Your task to perform on an android device: turn off notifications in google photos Image 0: 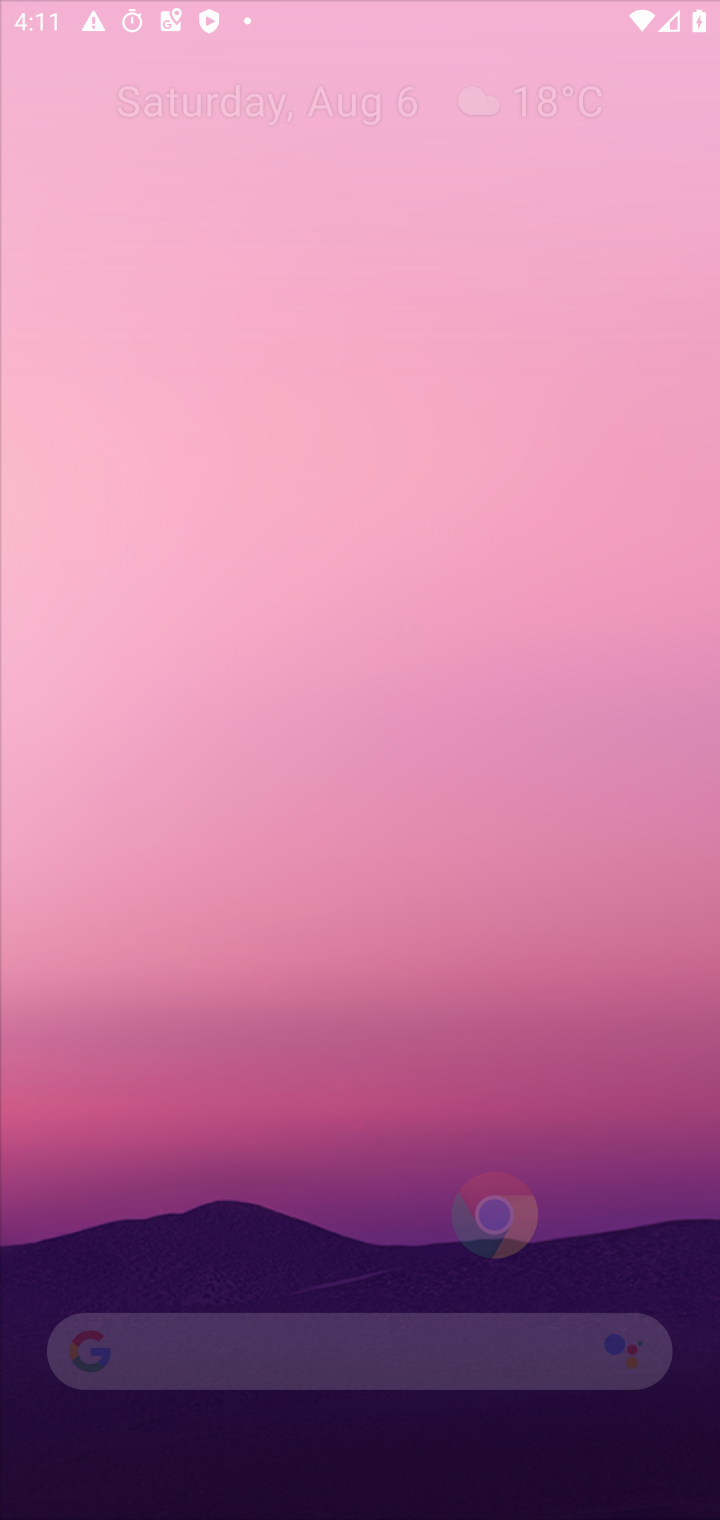
Step 0: press home button
Your task to perform on an android device: turn off notifications in google photos Image 1: 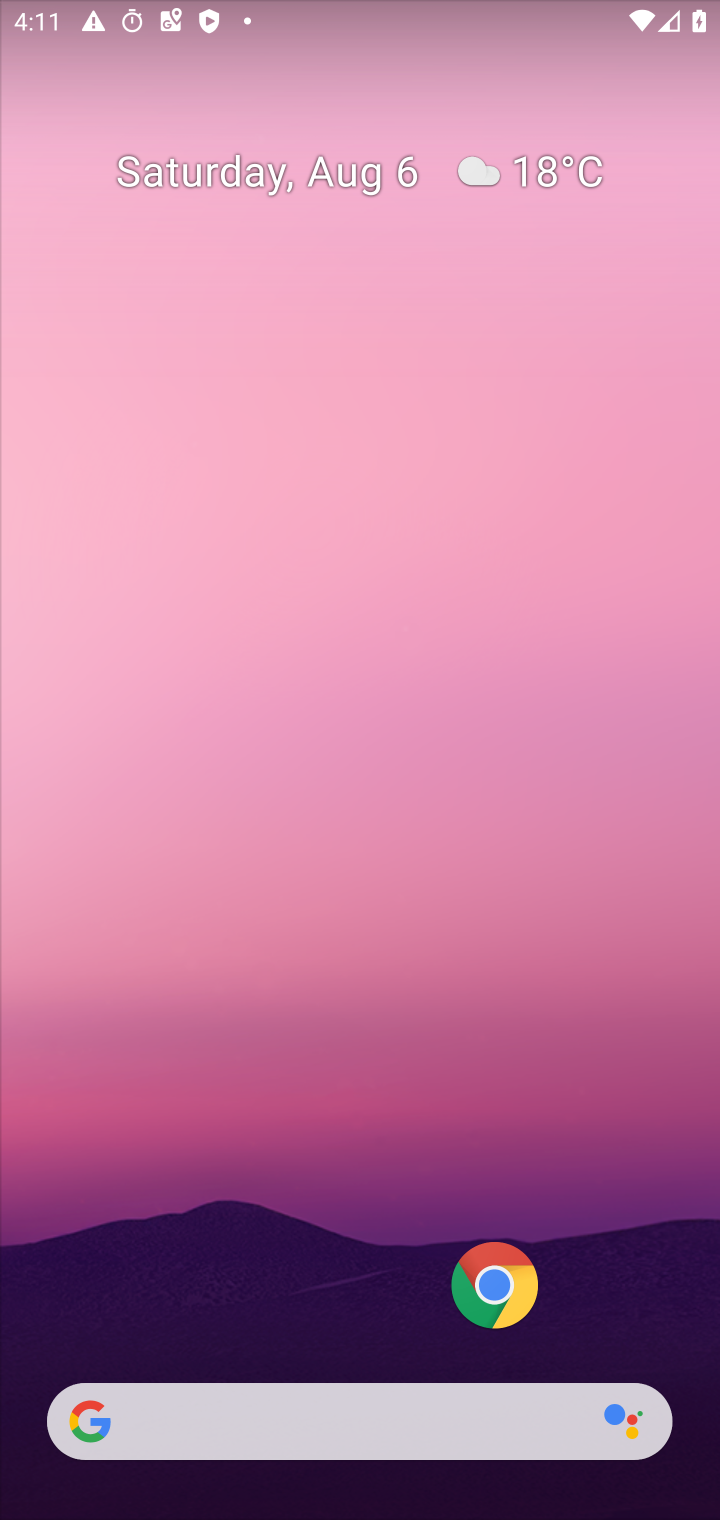
Step 1: drag from (330, 1307) to (270, 604)
Your task to perform on an android device: turn off notifications in google photos Image 2: 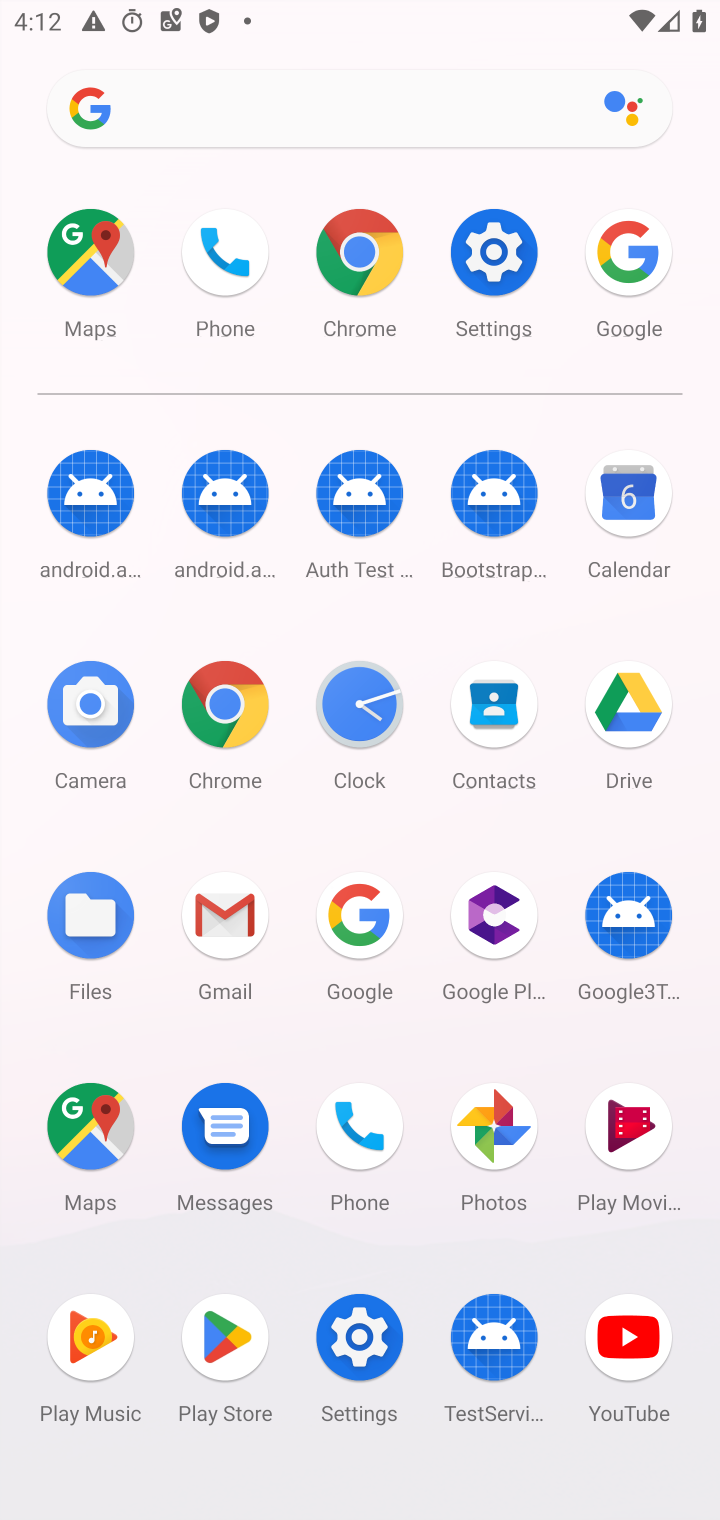
Step 2: click (494, 1126)
Your task to perform on an android device: turn off notifications in google photos Image 3: 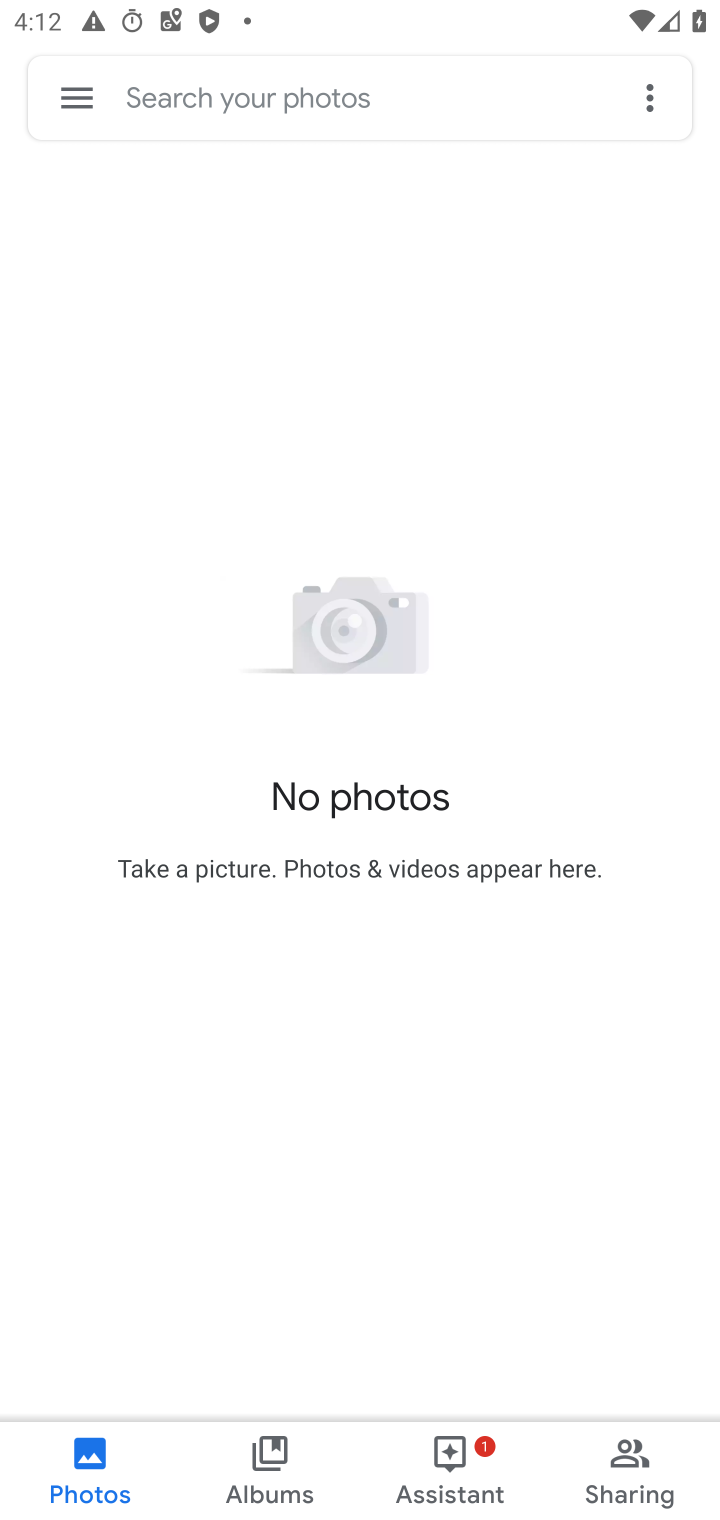
Step 3: click (67, 90)
Your task to perform on an android device: turn off notifications in google photos Image 4: 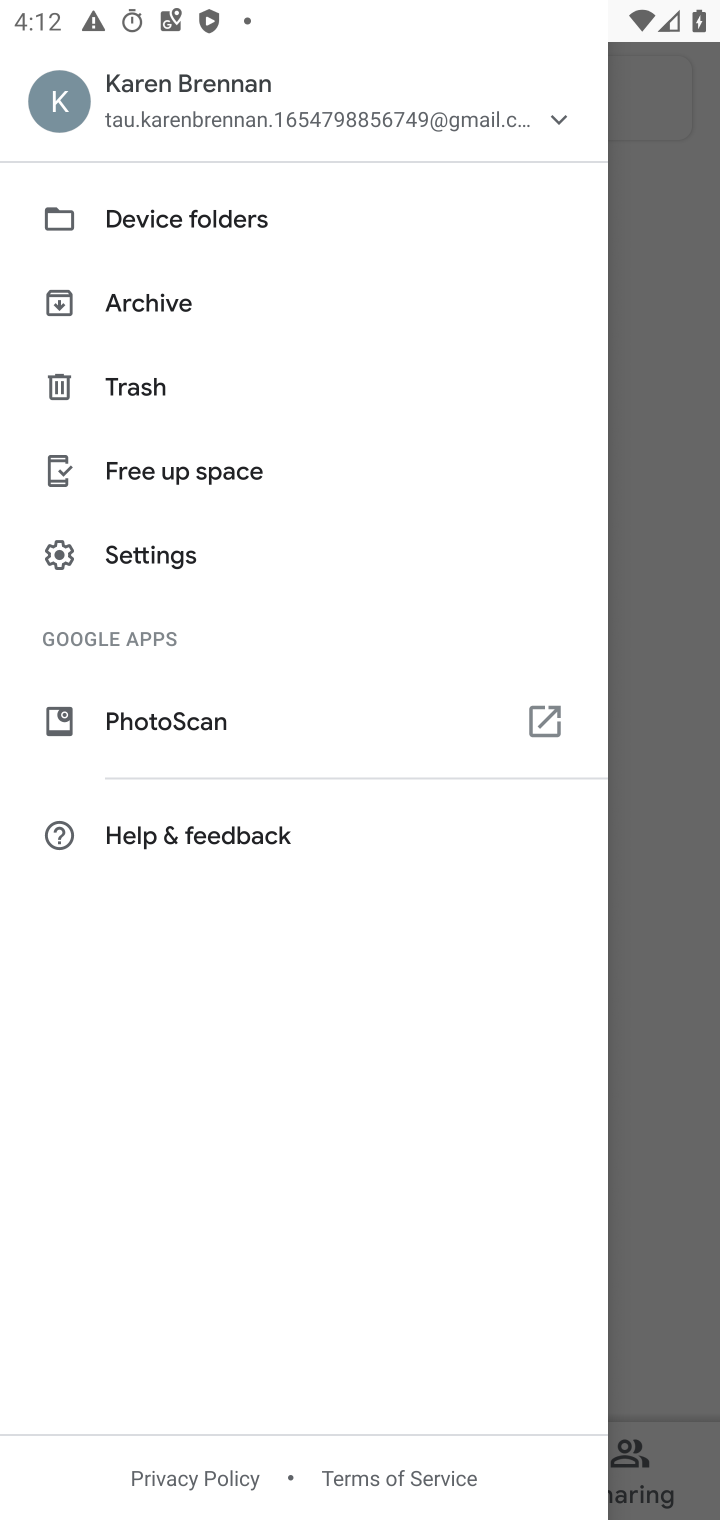
Step 4: click (196, 545)
Your task to perform on an android device: turn off notifications in google photos Image 5: 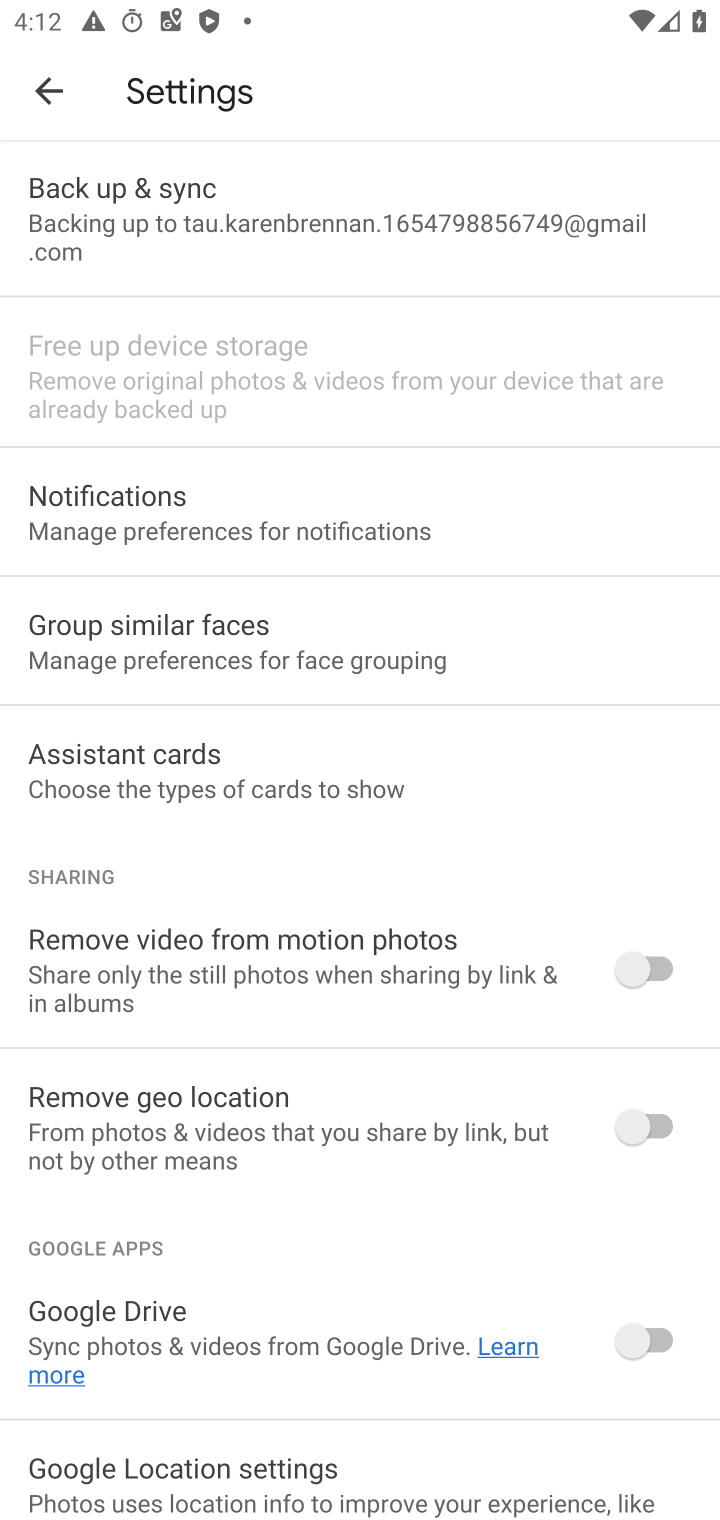
Step 5: click (221, 505)
Your task to perform on an android device: turn off notifications in google photos Image 6: 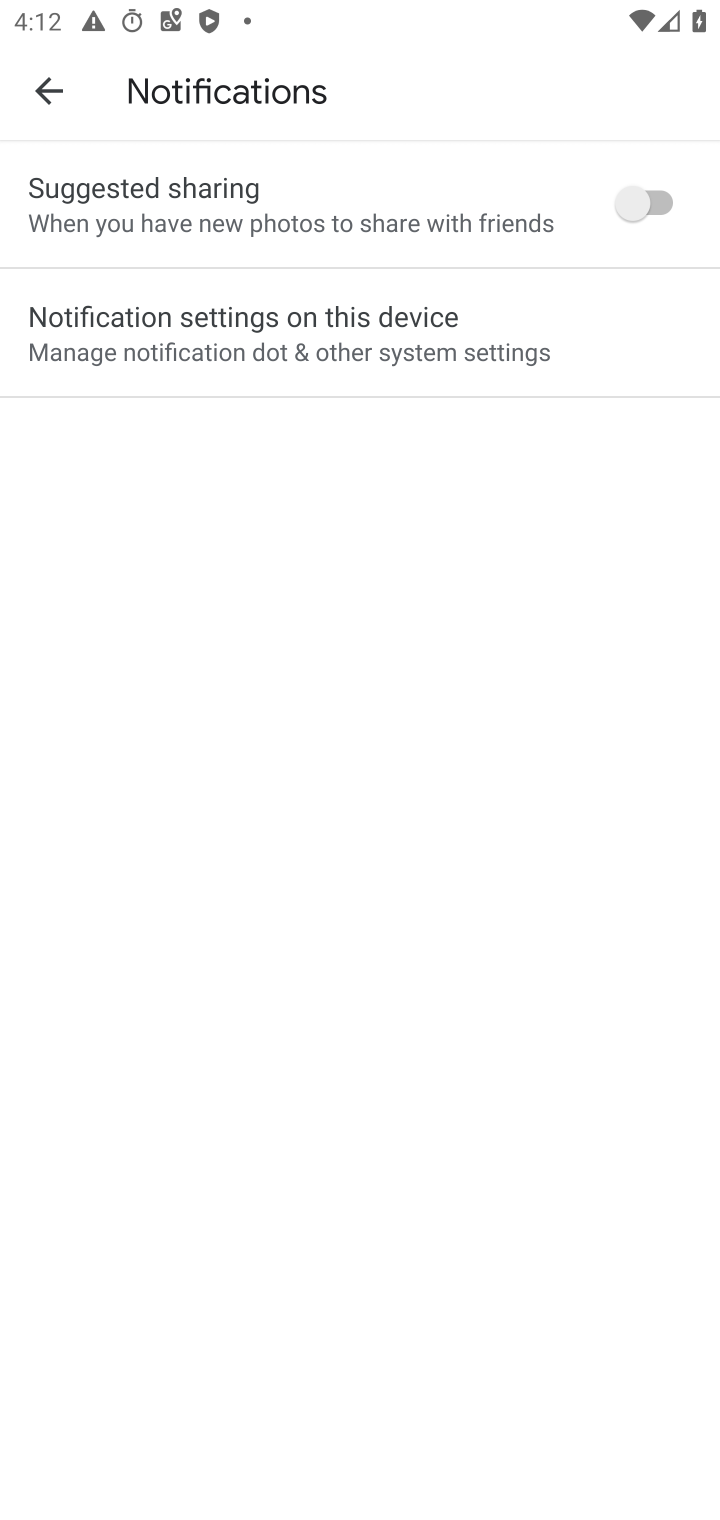
Step 6: click (322, 346)
Your task to perform on an android device: turn off notifications in google photos Image 7: 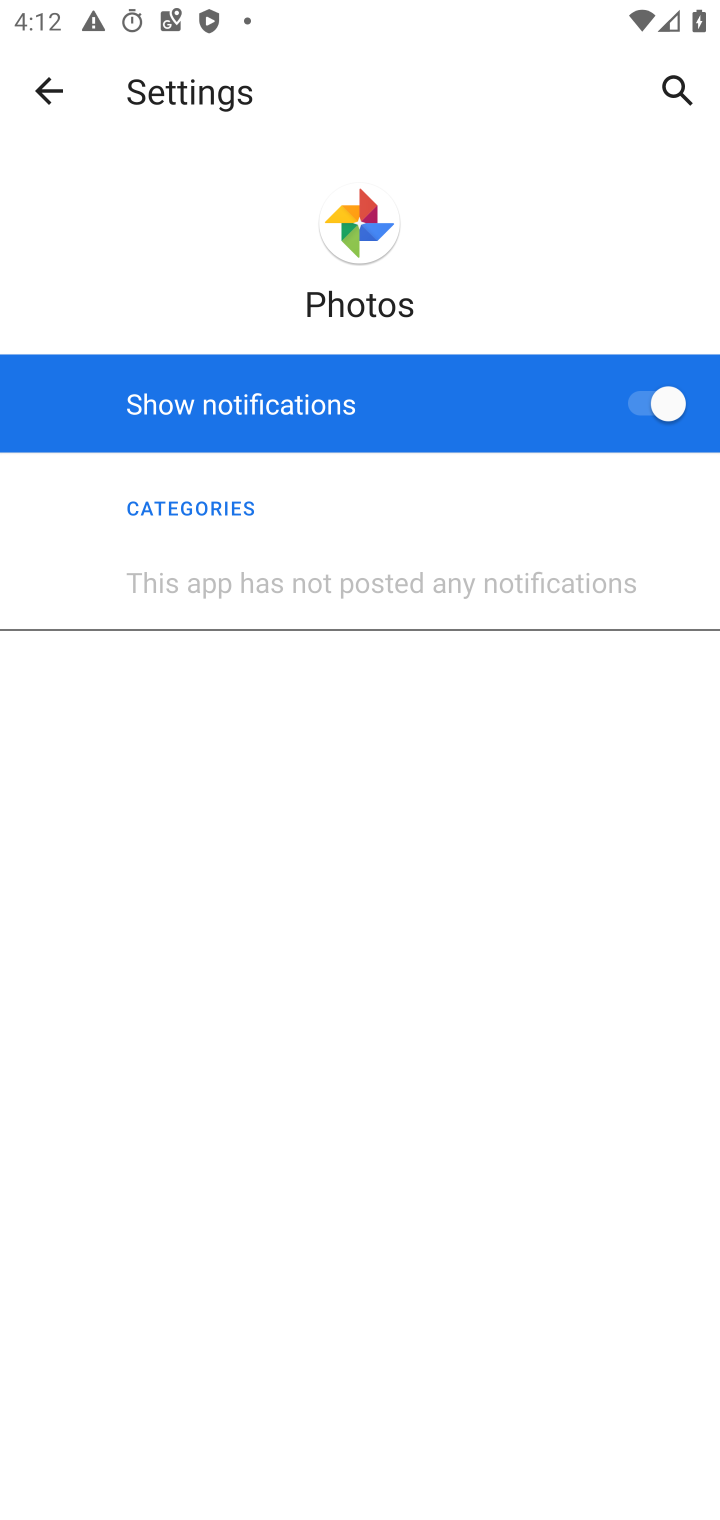
Step 7: click (642, 390)
Your task to perform on an android device: turn off notifications in google photos Image 8: 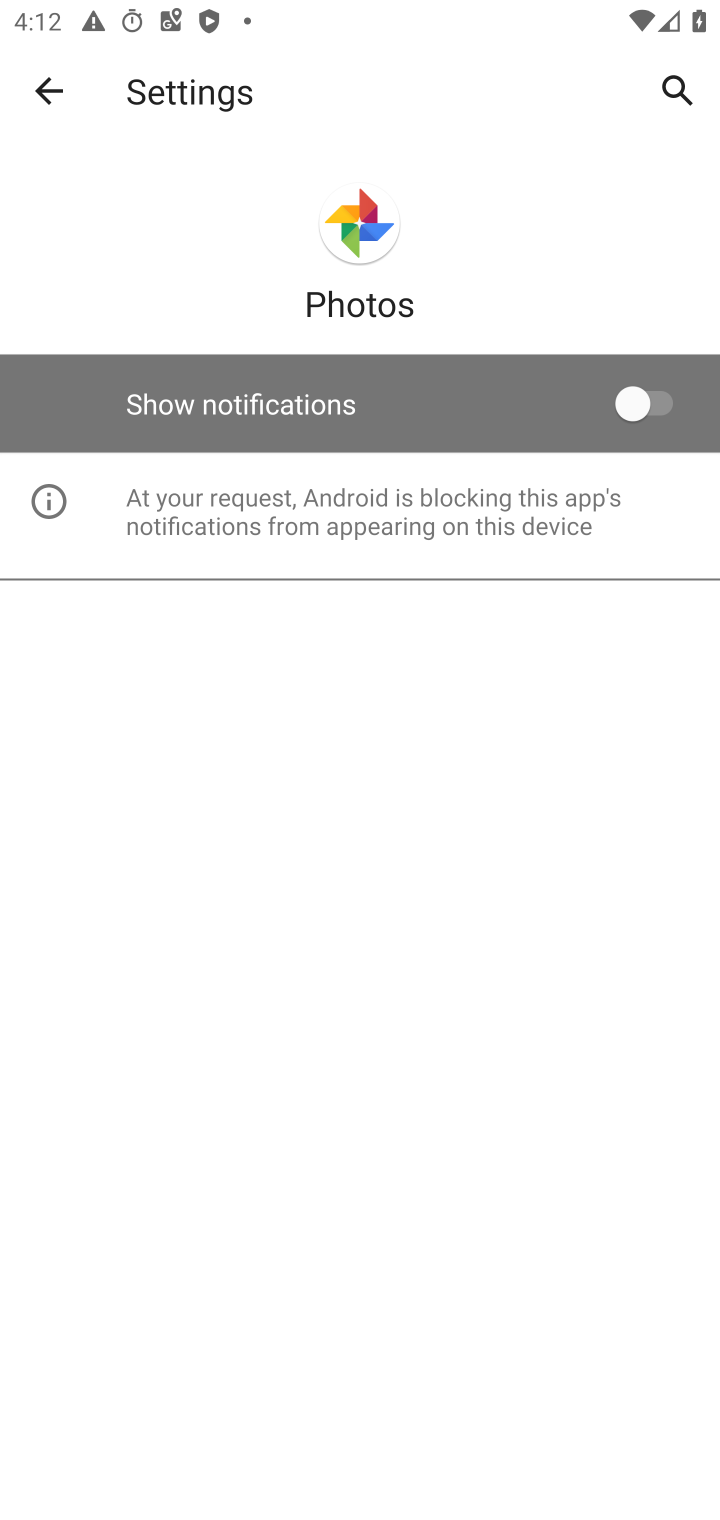
Step 8: task complete